Your task to perform on an android device: Open Google Chrome and open the bookmarks view Image 0: 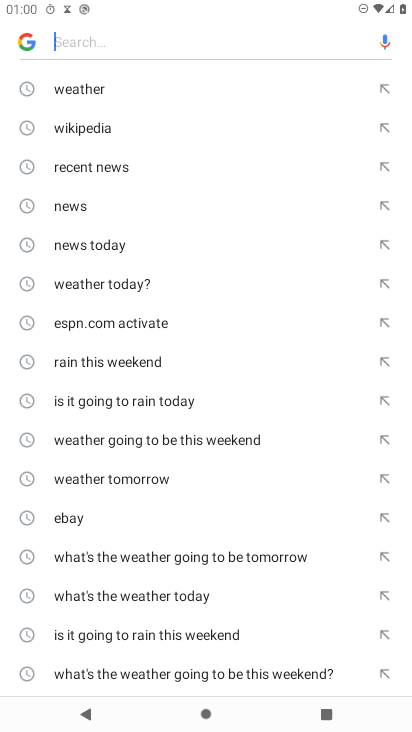
Step 0: press home button
Your task to perform on an android device: Open Google Chrome and open the bookmarks view Image 1: 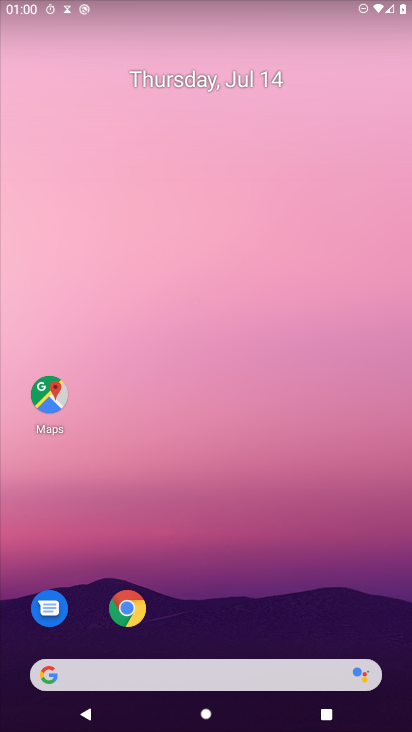
Step 1: click (135, 607)
Your task to perform on an android device: Open Google Chrome and open the bookmarks view Image 2: 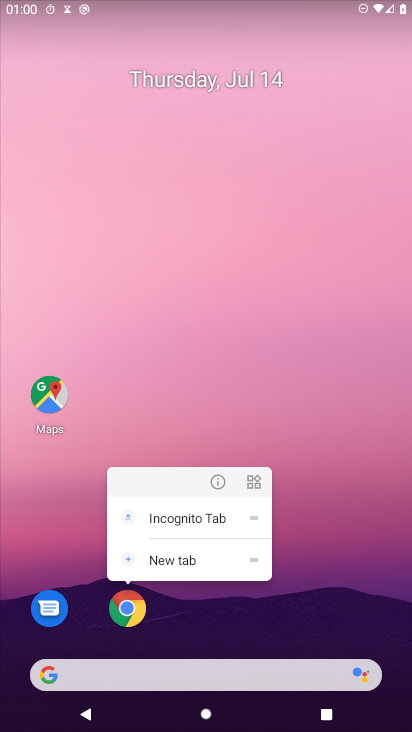
Step 2: click (108, 593)
Your task to perform on an android device: Open Google Chrome and open the bookmarks view Image 3: 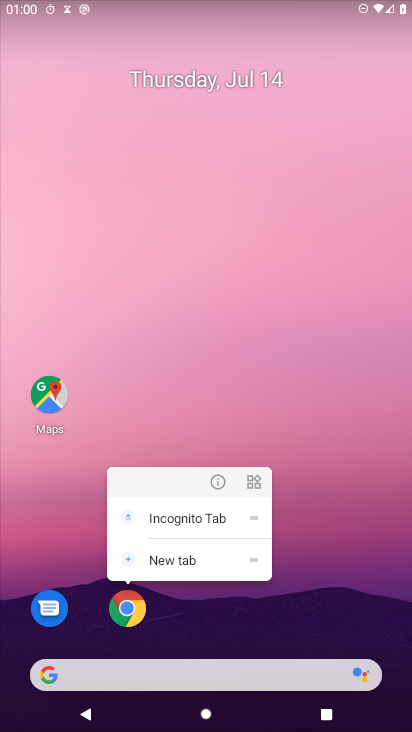
Step 3: click (120, 605)
Your task to perform on an android device: Open Google Chrome and open the bookmarks view Image 4: 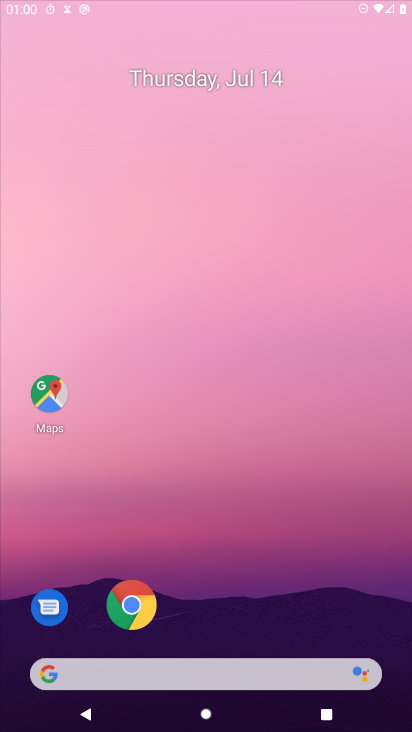
Step 4: click (120, 605)
Your task to perform on an android device: Open Google Chrome and open the bookmarks view Image 5: 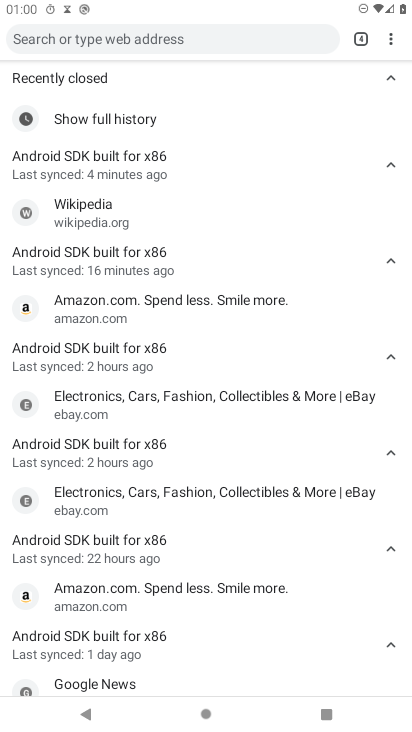
Step 5: task complete